Your task to perform on an android device: turn off airplane mode Image 0: 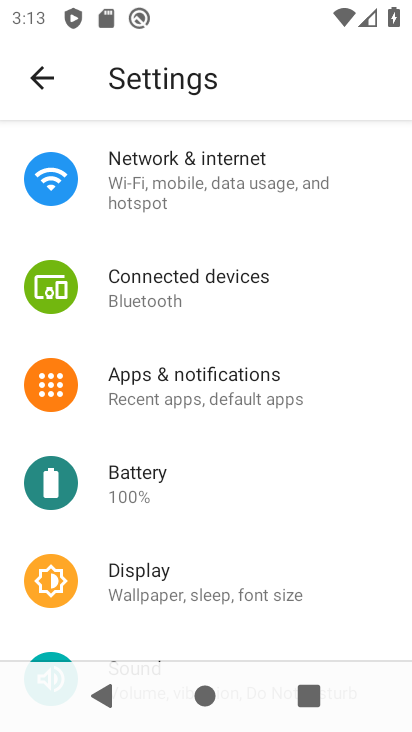
Step 0: press back button
Your task to perform on an android device: turn off airplane mode Image 1: 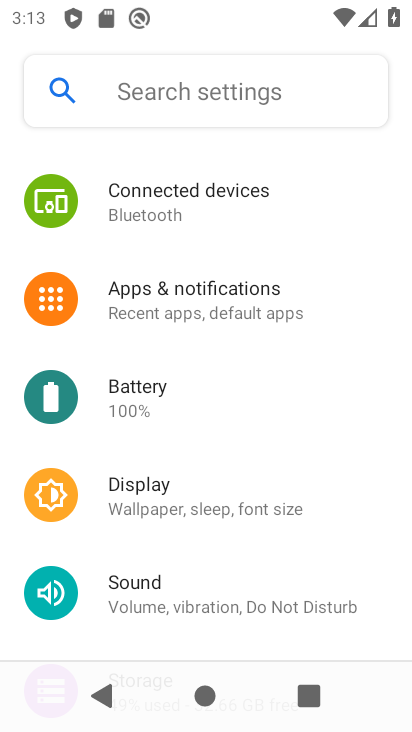
Step 1: task complete